Your task to perform on an android device: change alarm snooze length Image 0: 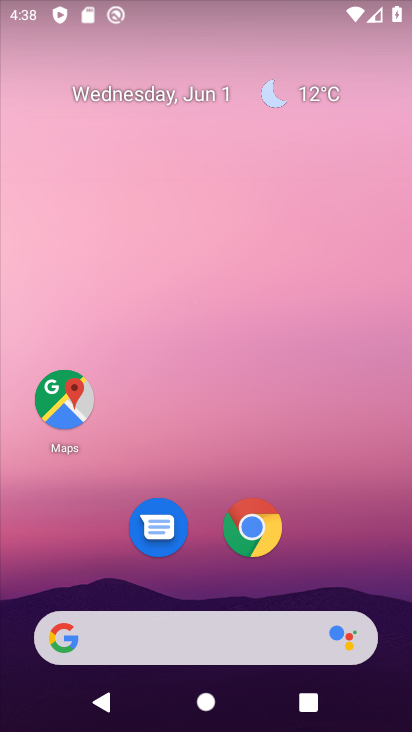
Step 0: drag from (222, 583) to (154, 93)
Your task to perform on an android device: change alarm snooze length Image 1: 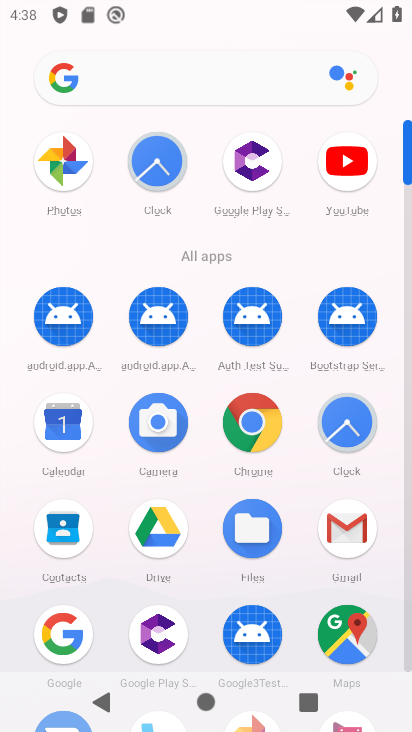
Step 1: click (140, 169)
Your task to perform on an android device: change alarm snooze length Image 2: 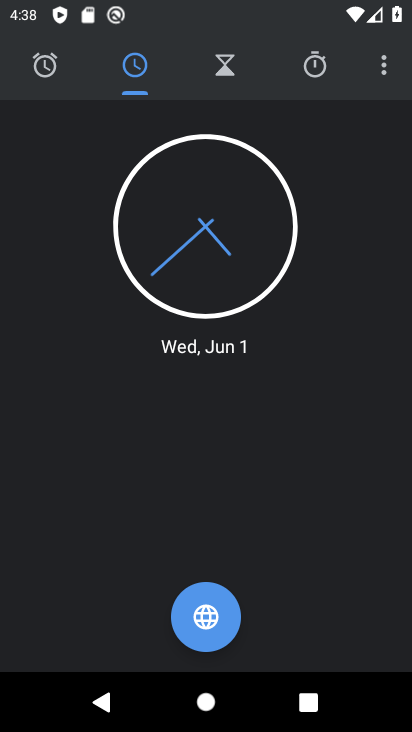
Step 2: click (398, 81)
Your task to perform on an android device: change alarm snooze length Image 3: 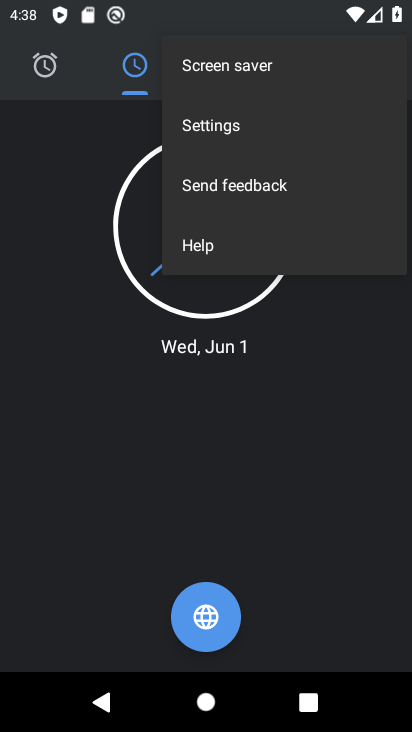
Step 3: click (264, 140)
Your task to perform on an android device: change alarm snooze length Image 4: 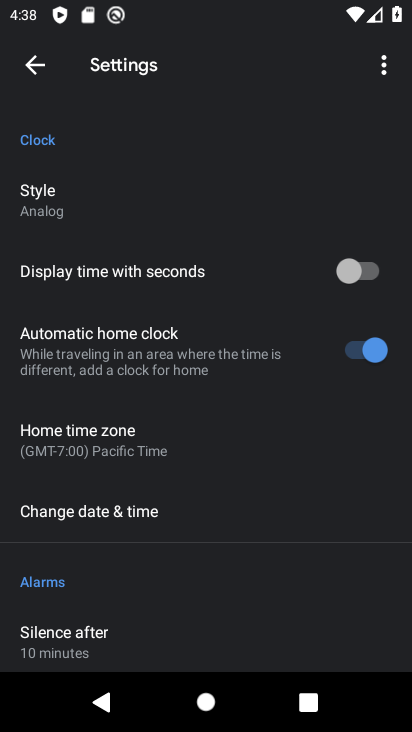
Step 4: drag from (121, 638) to (139, 112)
Your task to perform on an android device: change alarm snooze length Image 5: 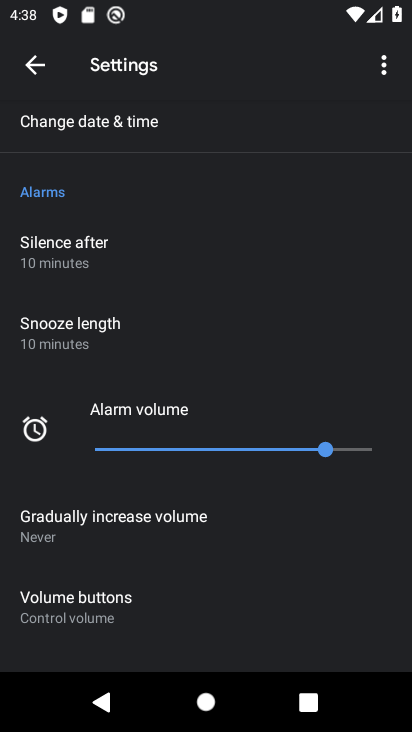
Step 5: click (83, 321)
Your task to perform on an android device: change alarm snooze length Image 6: 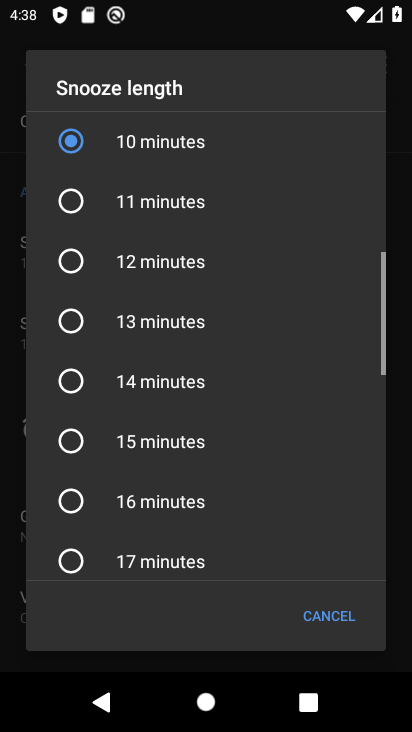
Step 6: click (78, 557)
Your task to perform on an android device: change alarm snooze length Image 7: 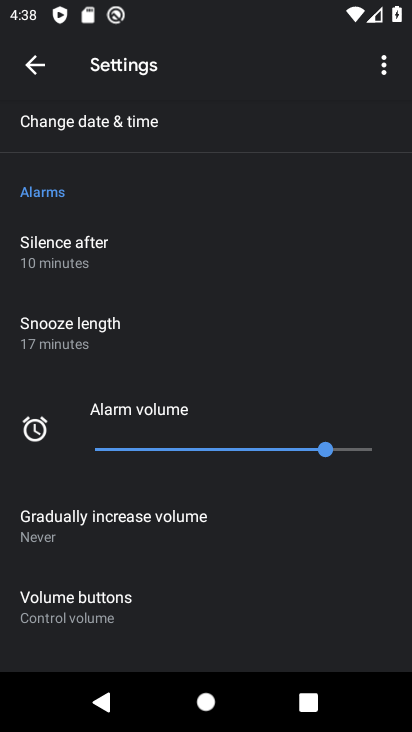
Step 7: task complete